Your task to perform on an android device: Open Android settings Image 0: 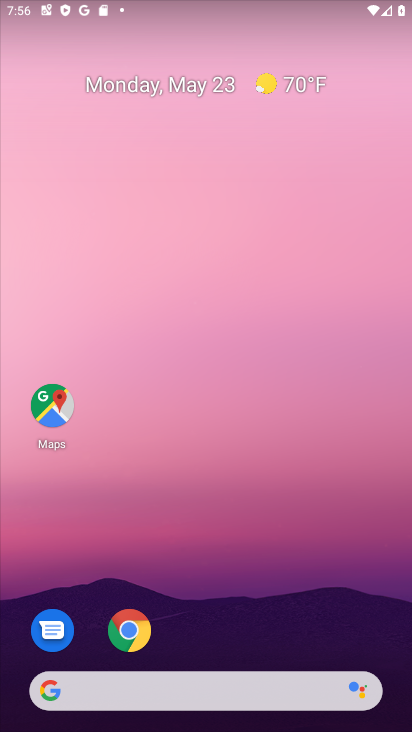
Step 0: drag from (275, 599) to (288, 139)
Your task to perform on an android device: Open Android settings Image 1: 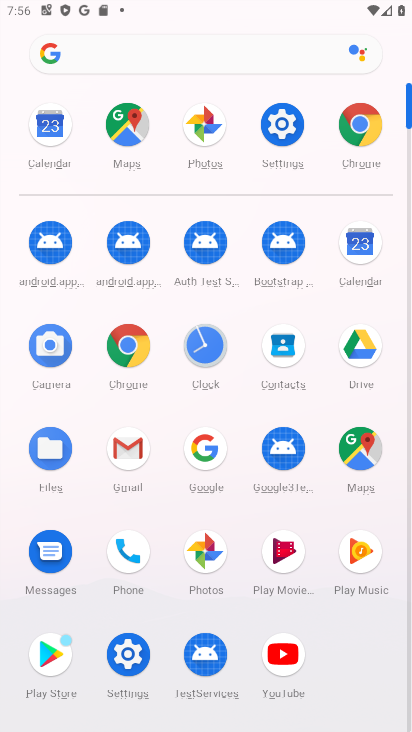
Step 1: click (290, 135)
Your task to perform on an android device: Open Android settings Image 2: 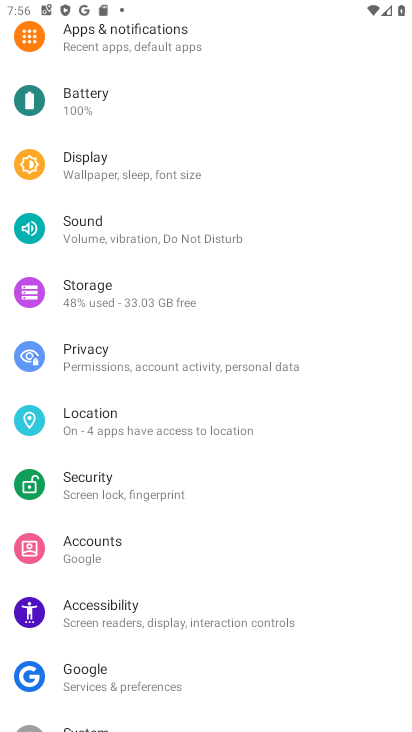
Step 2: task complete